Your task to perform on an android device: Open network settings Image 0: 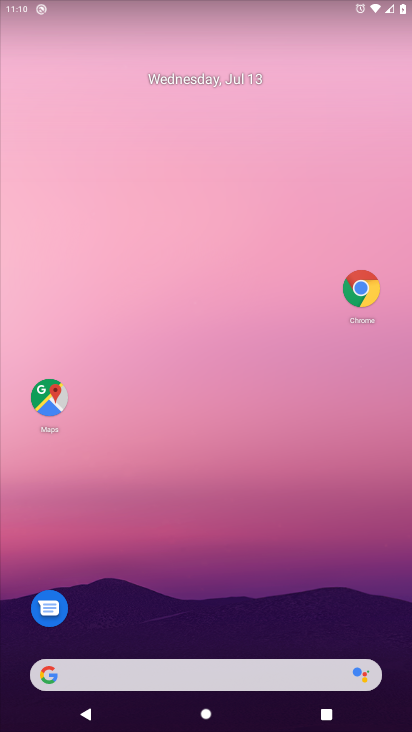
Step 0: drag from (42, 705) to (274, 128)
Your task to perform on an android device: Open network settings Image 1: 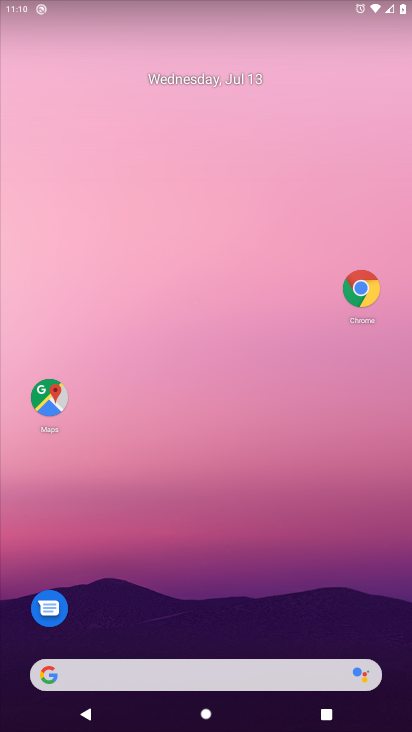
Step 1: drag from (55, 675) to (320, 5)
Your task to perform on an android device: Open network settings Image 2: 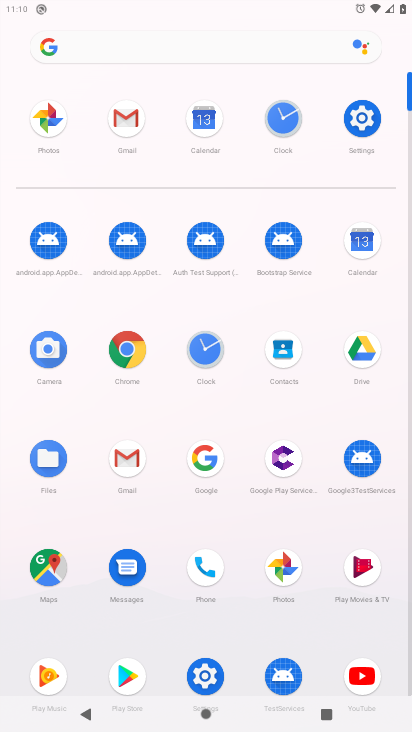
Step 2: click (204, 683)
Your task to perform on an android device: Open network settings Image 3: 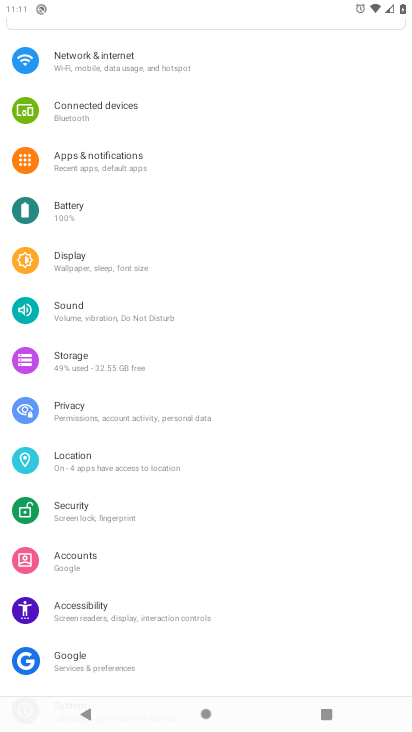
Step 3: click (131, 60)
Your task to perform on an android device: Open network settings Image 4: 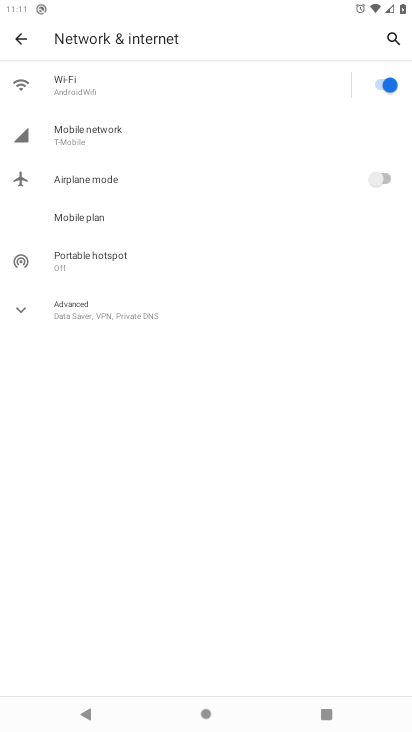
Step 4: task complete